Your task to perform on an android device: find snoozed emails in the gmail app Image 0: 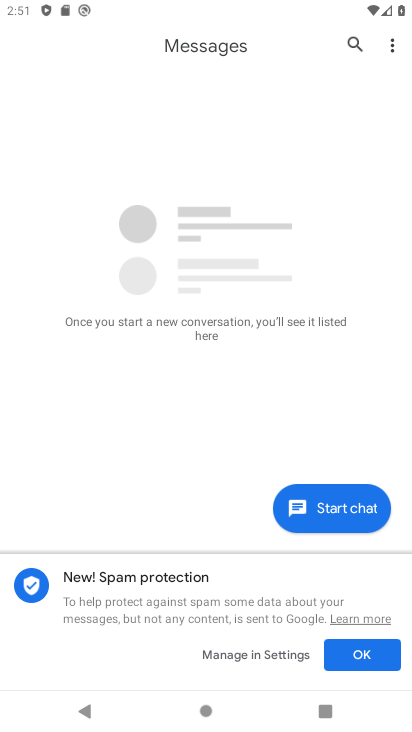
Step 0: press home button
Your task to perform on an android device: find snoozed emails in the gmail app Image 1: 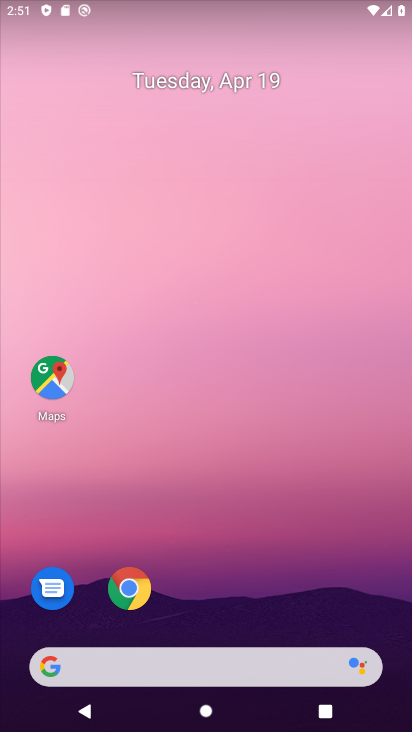
Step 1: drag from (321, 570) to (312, 248)
Your task to perform on an android device: find snoozed emails in the gmail app Image 2: 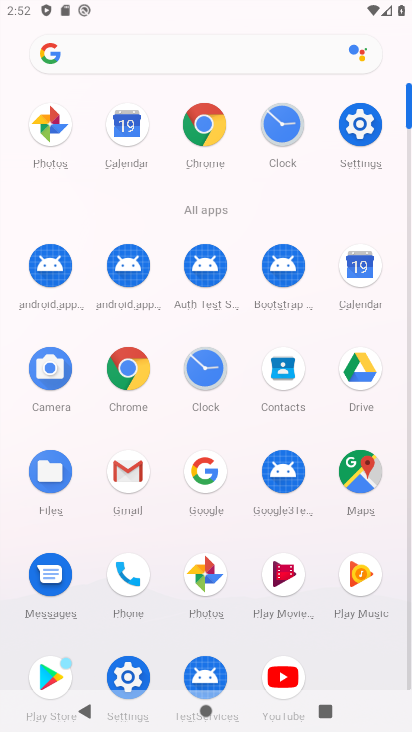
Step 2: click (152, 464)
Your task to perform on an android device: find snoozed emails in the gmail app Image 3: 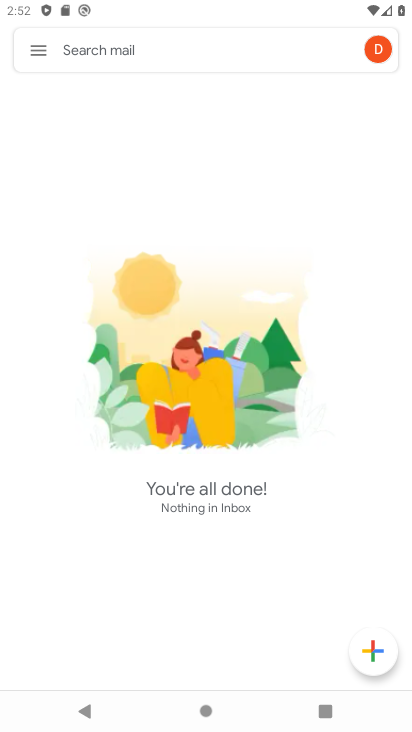
Step 3: click (35, 53)
Your task to perform on an android device: find snoozed emails in the gmail app Image 4: 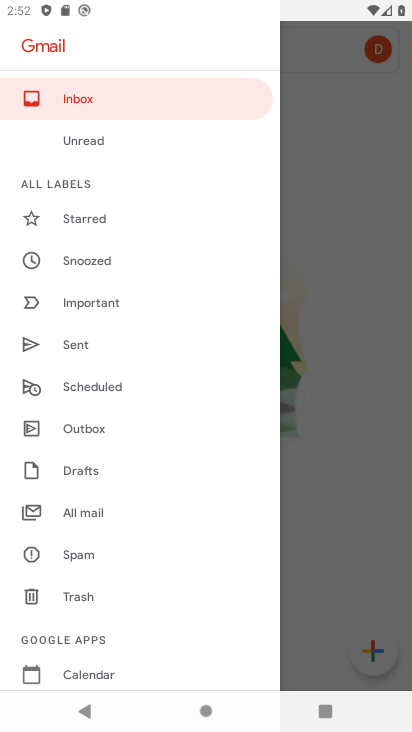
Step 4: click (68, 261)
Your task to perform on an android device: find snoozed emails in the gmail app Image 5: 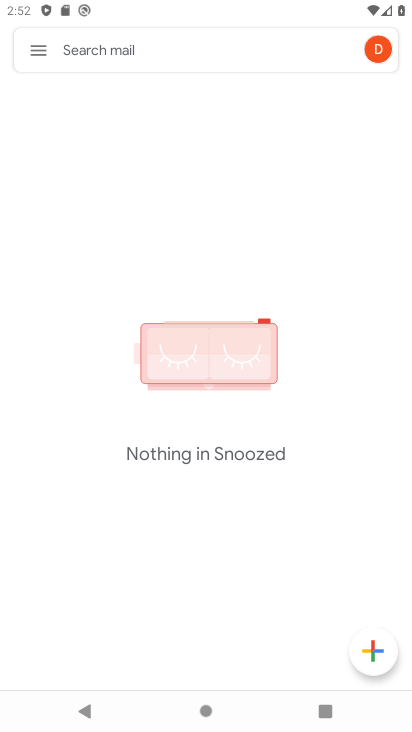
Step 5: task complete